Your task to perform on an android device: turn on priority inbox in the gmail app Image 0: 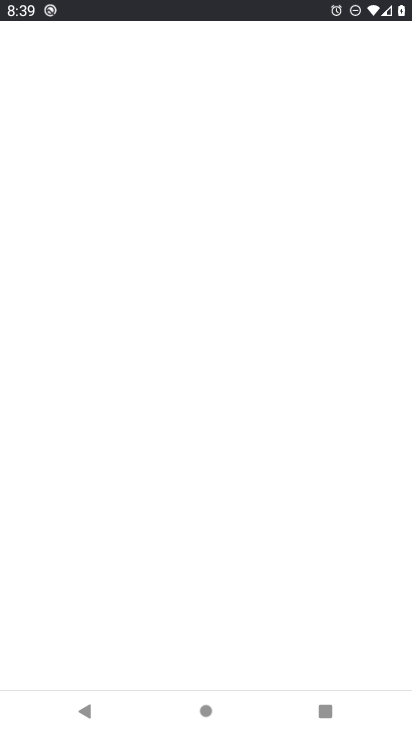
Step 0: drag from (46, 695) to (346, 58)
Your task to perform on an android device: turn on priority inbox in the gmail app Image 1: 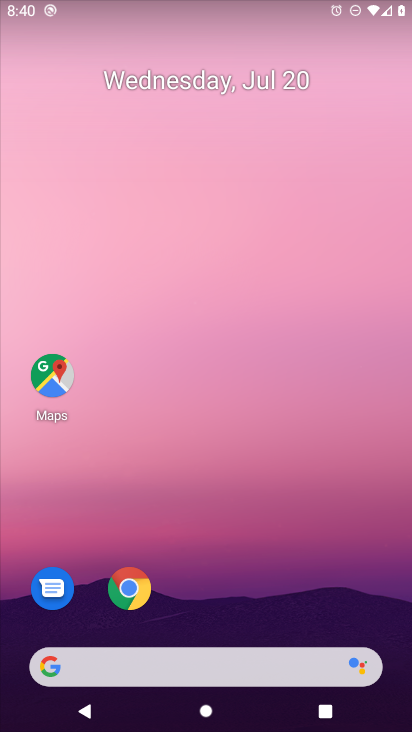
Step 1: drag from (90, 603) to (176, 226)
Your task to perform on an android device: turn on priority inbox in the gmail app Image 2: 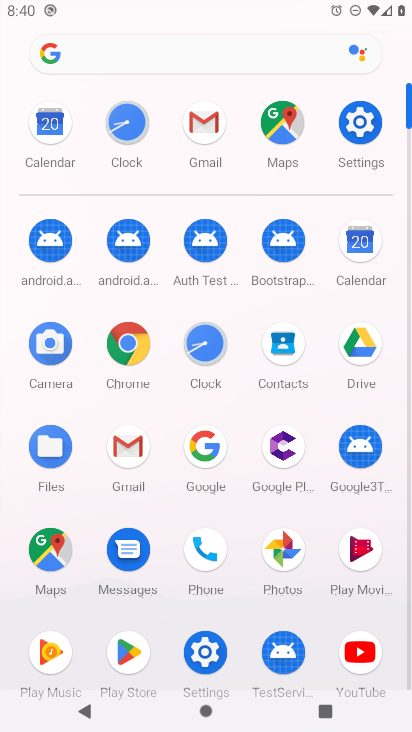
Step 2: click (140, 441)
Your task to perform on an android device: turn on priority inbox in the gmail app Image 3: 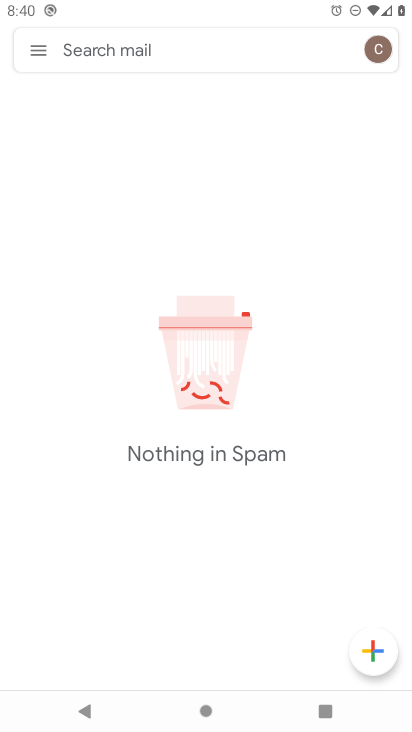
Step 3: click (44, 48)
Your task to perform on an android device: turn on priority inbox in the gmail app Image 4: 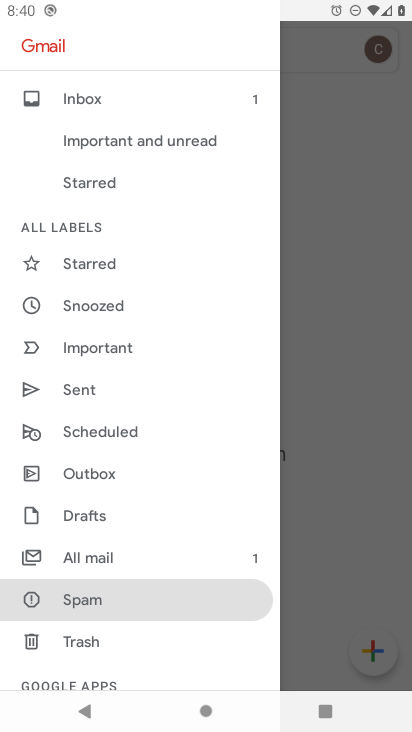
Step 4: drag from (124, 634) to (149, 250)
Your task to perform on an android device: turn on priority inbox in the gmail app Image 5: 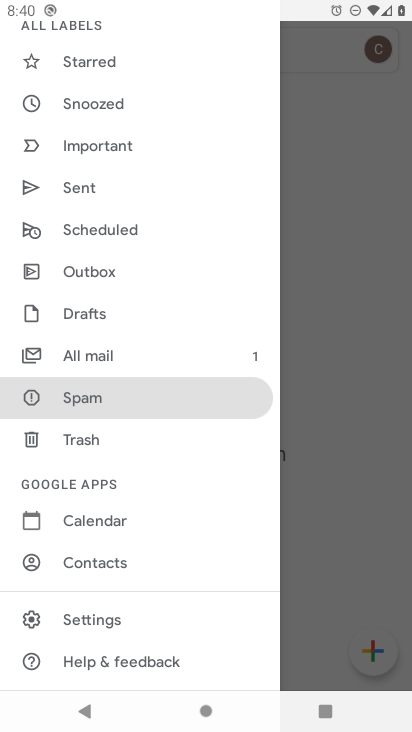
Step 5: click (79, 624)
Your task to perform on an android device: turn on priority inbox in the gmail app Image 6: 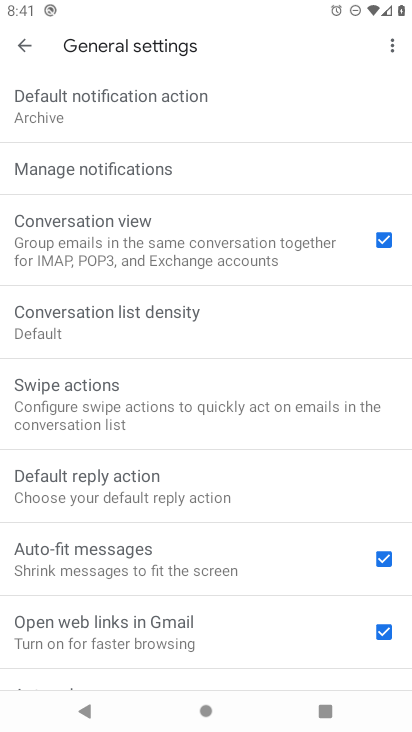
Step 6: click (17, 55)
Your task to perform on an android device: turn on priority inbox in the gmail app Image 7: 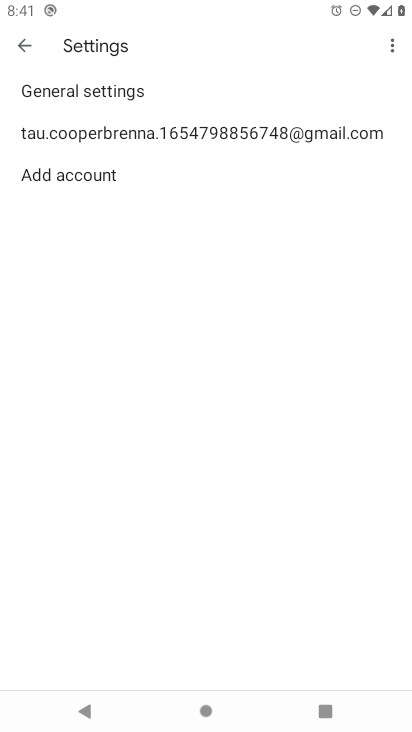
Step 7: click (184, 131)
Your task to perform on an android device: turn on priority inbox in the gmail app Image 8: 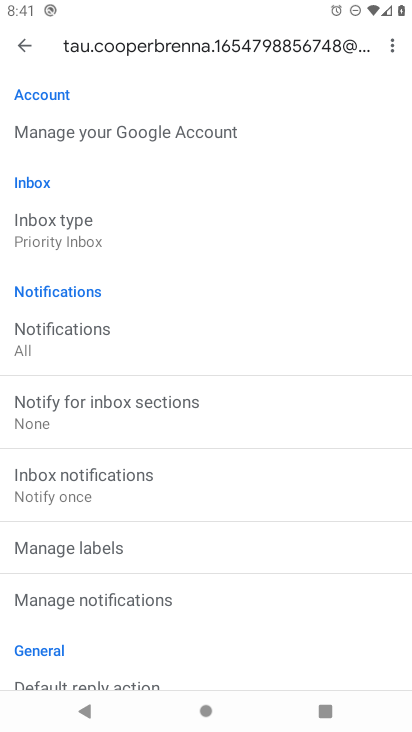
Step 8: task complete